Your task to perform on an android device: Open Android settings Image 0: 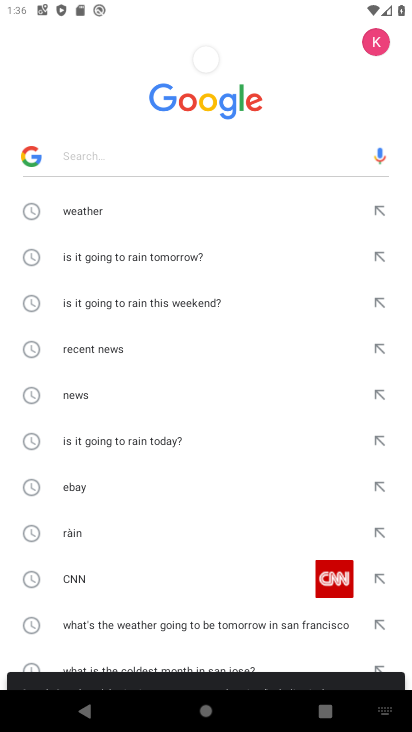
Step 0: press home button
Your task to perform on an android device: Open Android settings Image 1: 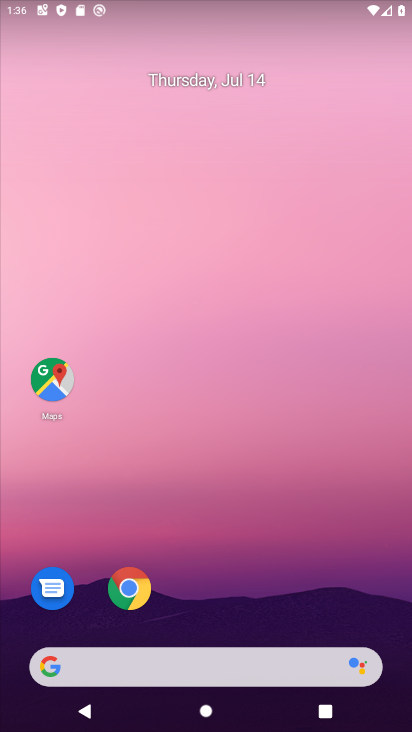
Step 1: drag from (164, 641) to (259, 209)
Your task to perform on an android device: Open Android settings Image 2: 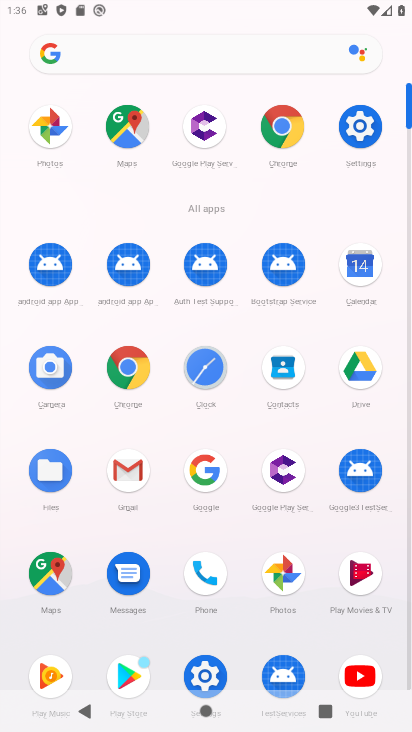
Step 2: click (197, 689)
Your task to perform on an android device: Open Android settings Image 3: 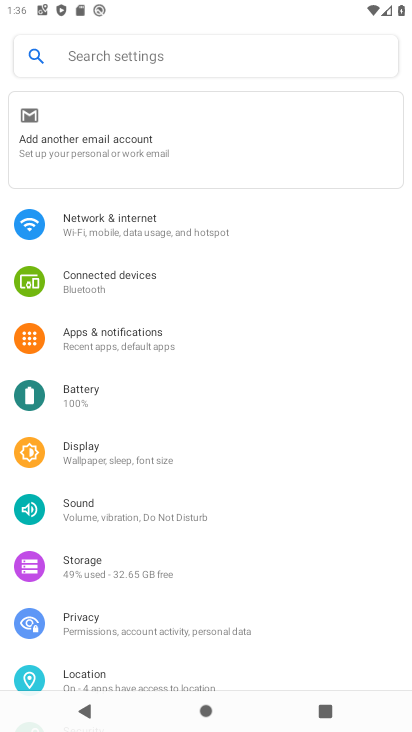
Step 3: task complete